Your task to perform on an android device: Show me popular videos on Youtube Image 0: 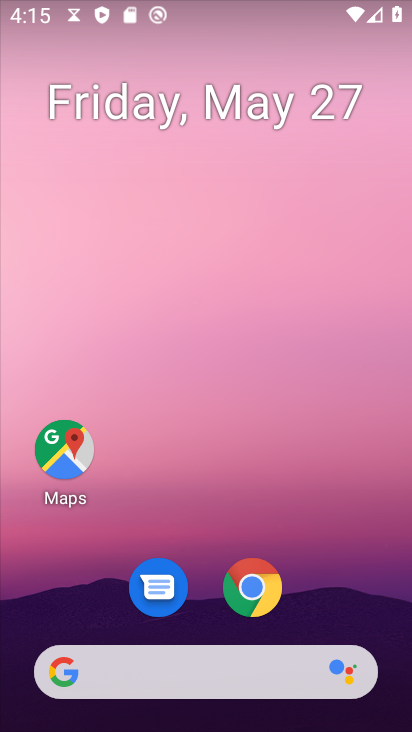
Step 0: drag from (383, 541) to (289, 61)
Your task to perform on an android device: Show me popular videos on Youtube Image 1: 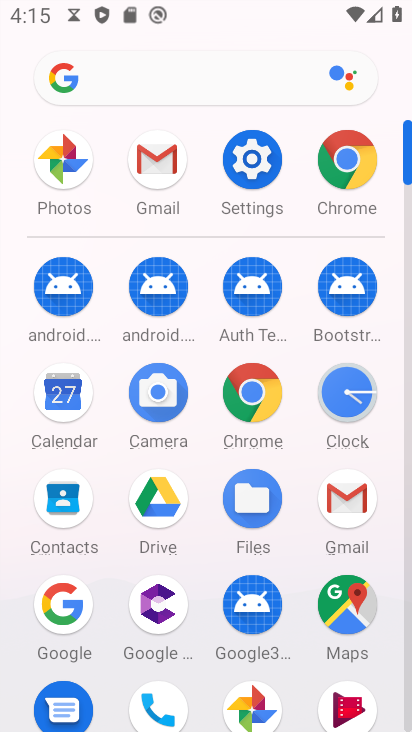
Step 1: drag from (8, 563) to (11, 222)
Your task to perform on an android device: Show me popular videos on Youtube Image 2: 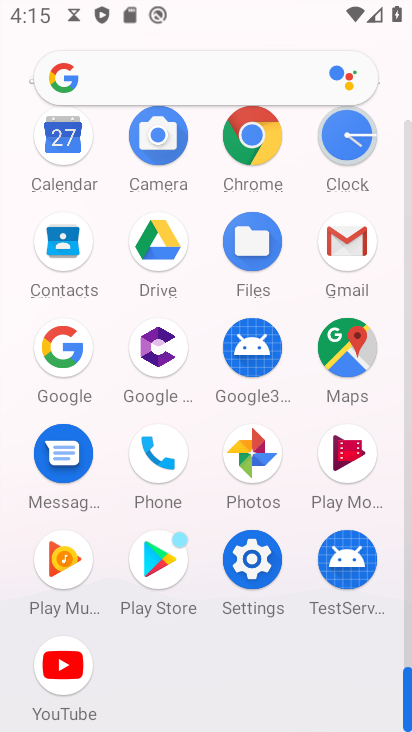
Step 2: click (62, 658)
Your task to perform on an android device: Show me popular videos on Youtube Image 3: 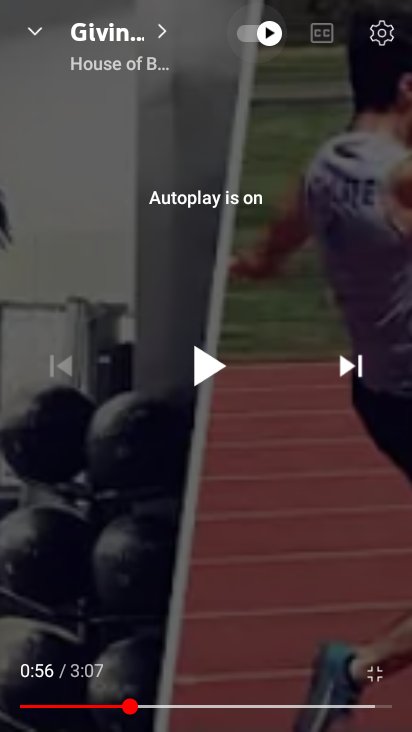
Step 3: click (369, 667)
Your task to perform on an android device: Show me popular videos on Youtube Image 4: 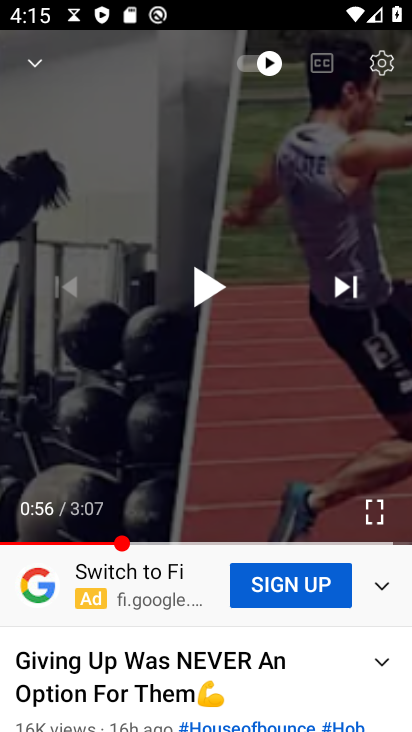
Step 4: press back button
Your task to perform on an android device: Show me popular videos on Youtube Image 5: 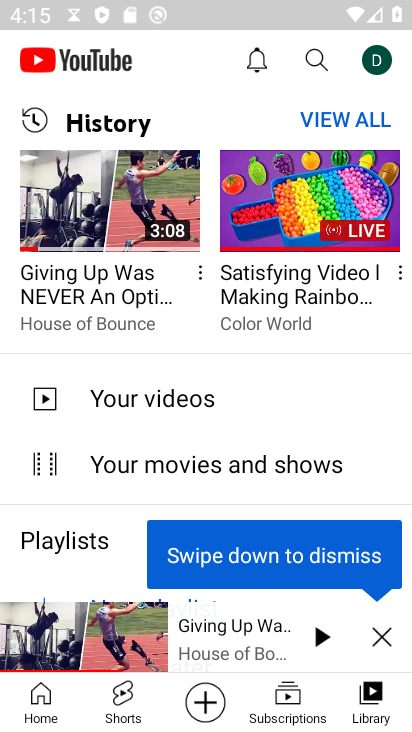
Step 5: click (367, 696)
Your task to perform on an android device: Show me popular videos on Youtube Image 6: 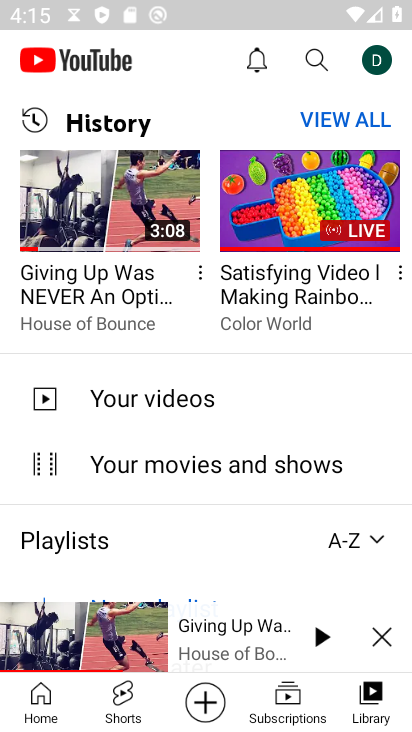
Step 6: click (111, 220)
Your task to perform on an android device: Show me popular videos on Youtube Image 7: 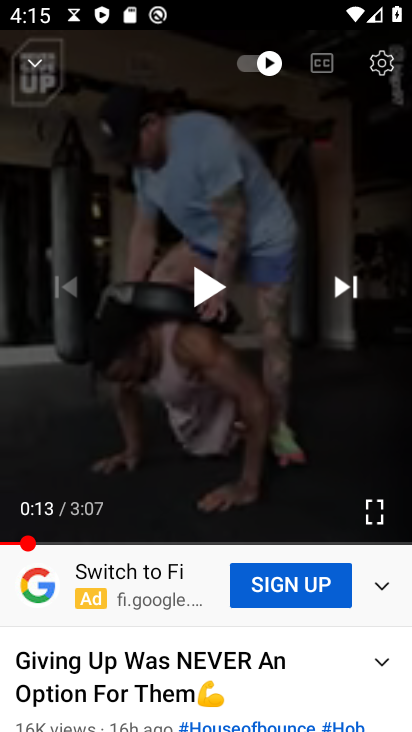
Step 7: click (203, 293)
Your task to perform on an android device: Show me popular videos on Youtube Image 8: 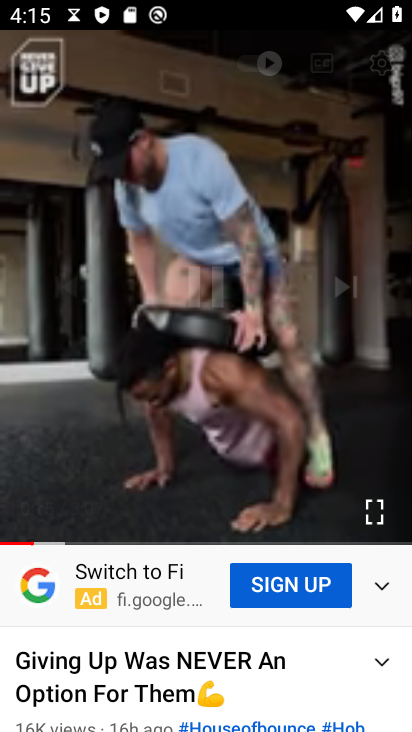
Step 8: press back button
Your task to perform on an android device: Show me popular videos on Youtube Image 9: 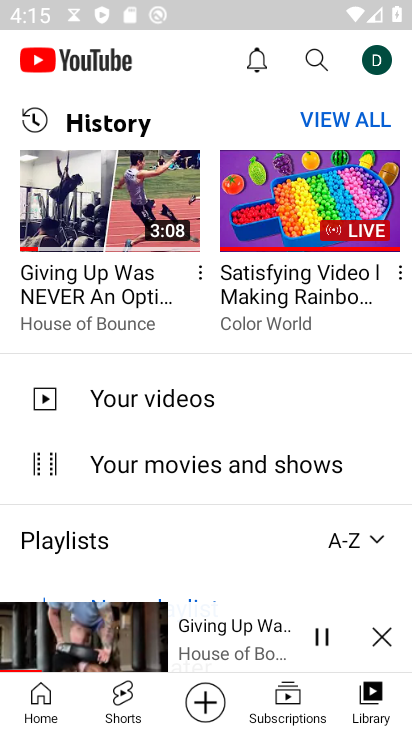
Step 9: click (28, 699)
Your task to perform on an android device: Show me popular videos on Youtube Image 10: 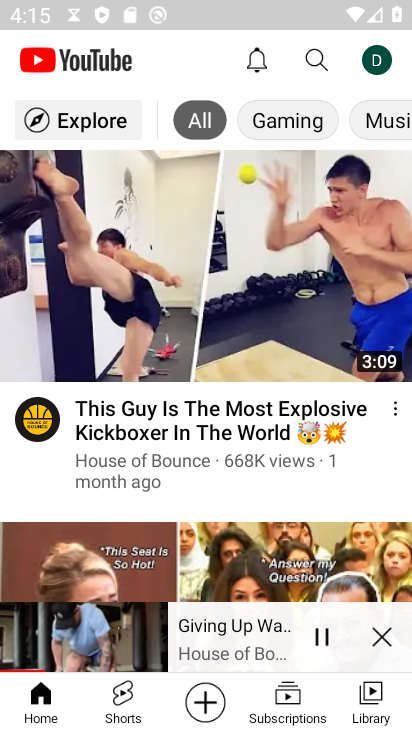
Step 10: click (28, 699)
Your task to perform on an android device: Show me popular videos on Youtube Image 11: 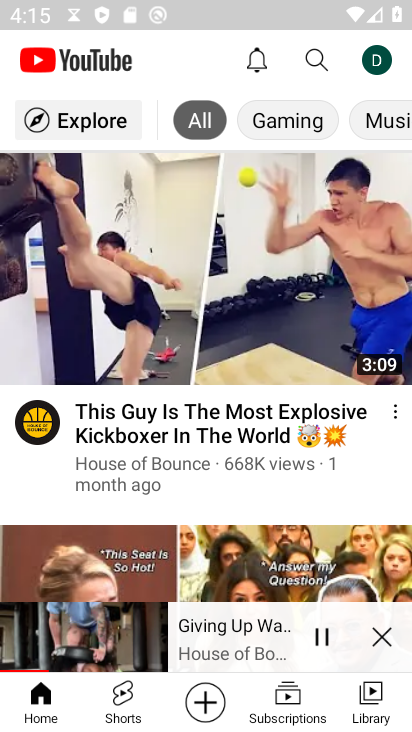
Step 11: click (73, 113)
Your task to perform on an android device: Show me popular videos on Youtube Image 12: 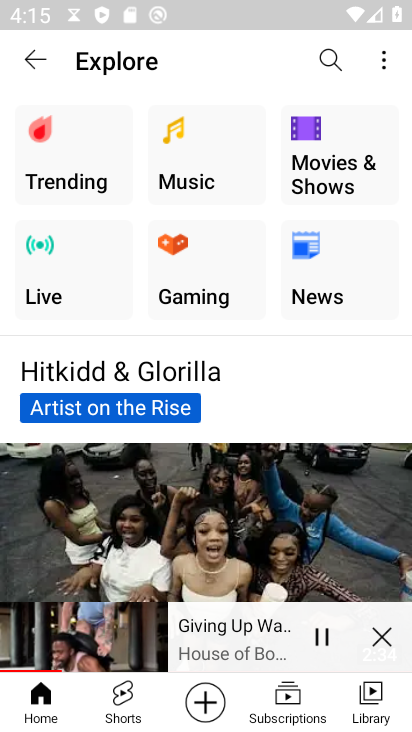
Step 12: drag from (220, 446) to (208, 332)
Your task to perform on an android device: Show me popular videos on Youtube Image 13: 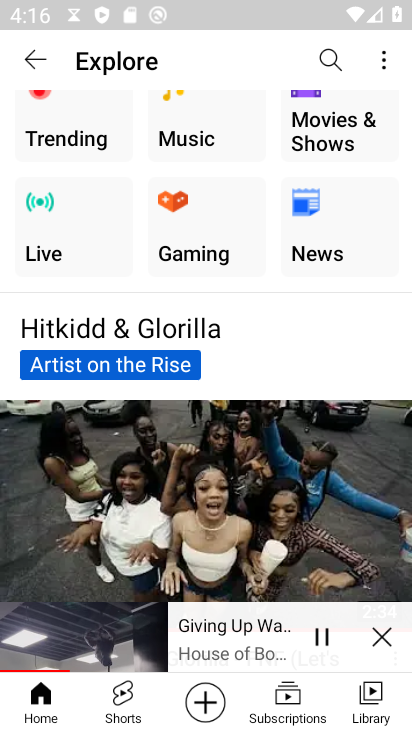
Step 13: click (41, 116)
Your task to perform on an android device: Show me popular videos on Youtube Image 14: 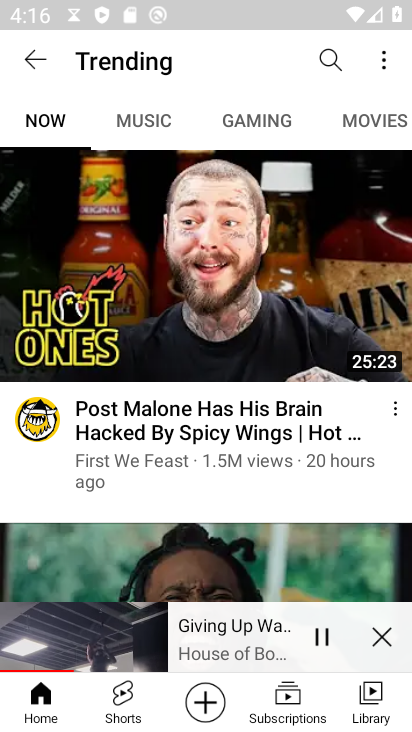
Step 14: task complete